Your task to perform on an android device: change your default location settings in chrome Image 0: 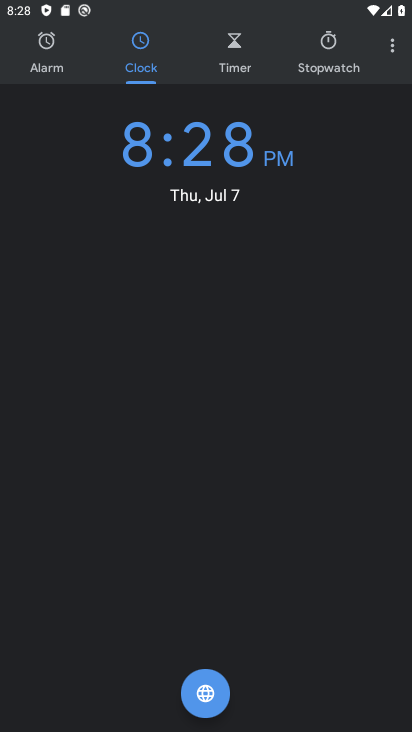
Step 0: press home button
Your task to perform on an android device: change your default location settings in chrome Image 1: 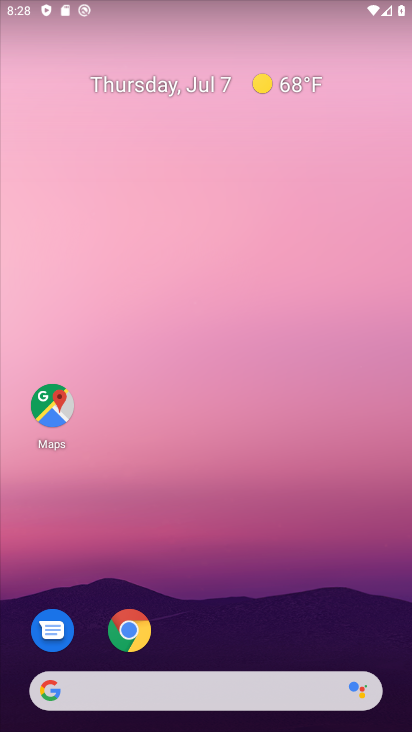
Step 1: click (133, 631)
Your task to perform on an android device: change your default location settings in chrome Image 2: 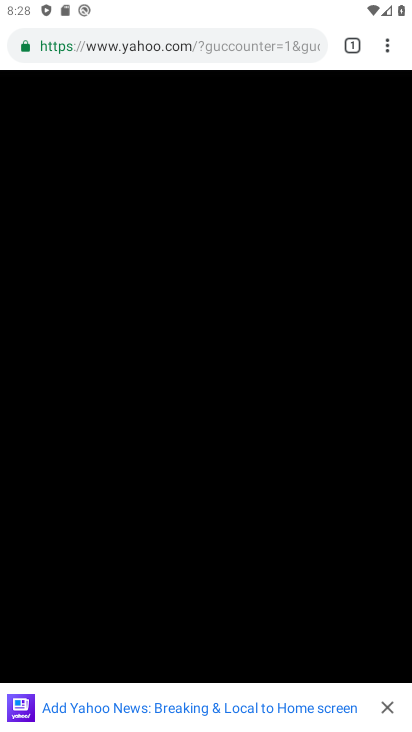
Step 2: click (391, 43)
Your task to perform on an android device: change your default location settings in chrome Image 3: 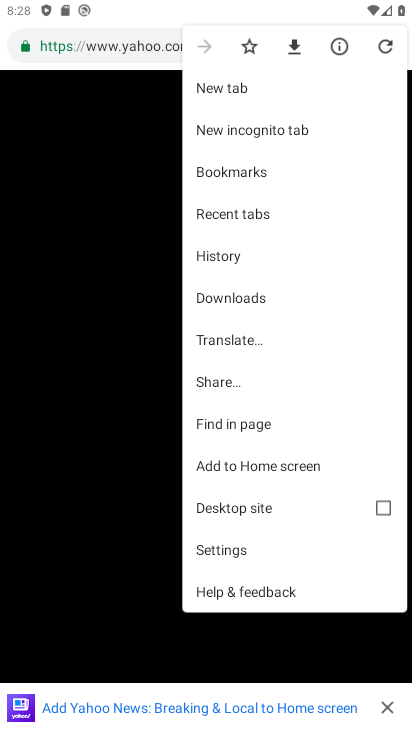
Step 3: click (226, 545)
Your task to perform on an android device: change your default location settings in chrome Image 4: 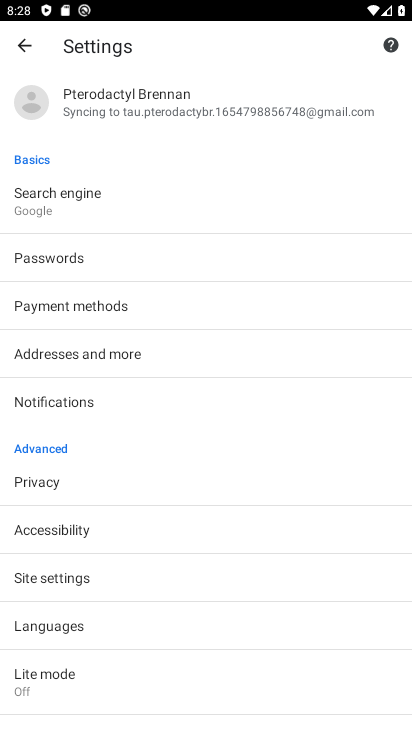
Step 4: click (75, 578)
Your task to perform on an android device: change your default location settings in chrome Image 5: 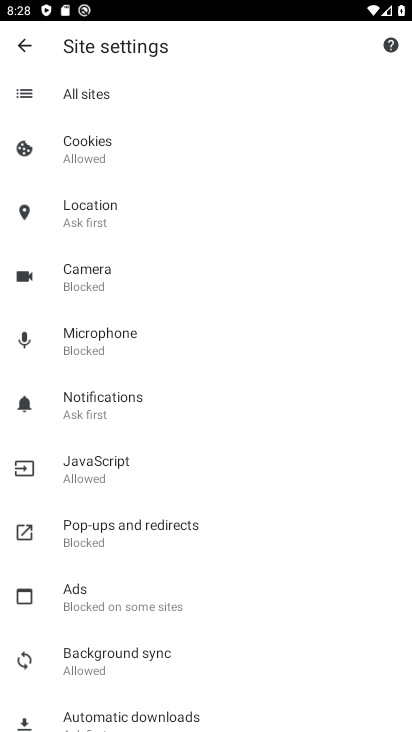
Step 5: click (93, 215)
Your task to perform on an android device: change your default location settings in chrome Image 6: 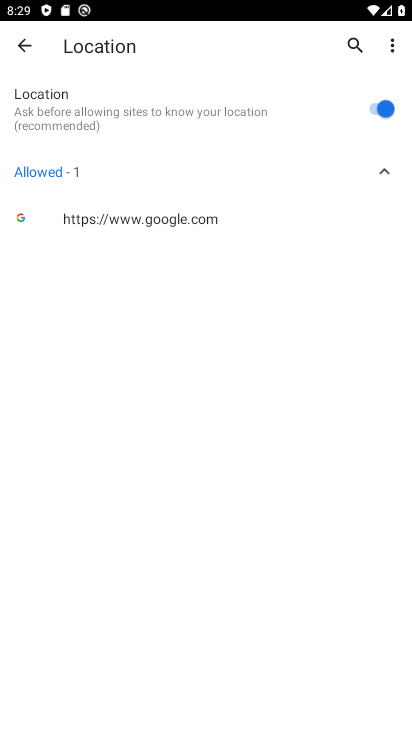
Step 6: click (380, 108)
Your task to perform on an android device: change your default location settings in chrome Image 7: 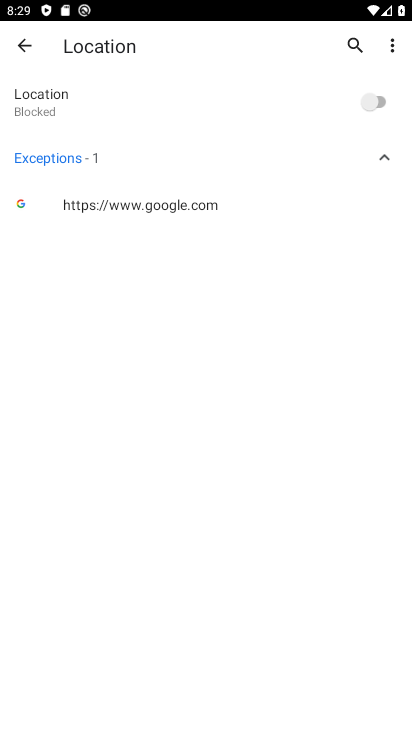
Step 7: task complete